Your task to perform on an android device: Show the shopping cart on bestbuy. Add "duracell triple a" to the cart on bestbuy, then select checkout. Image 0: 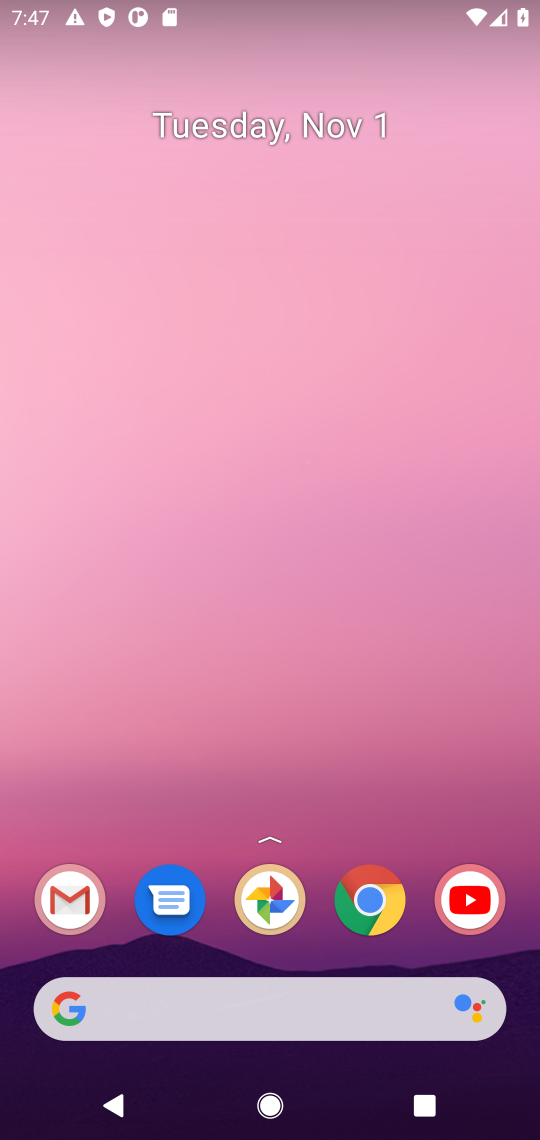
Step 0: drag from (314, 952) to (427, 198)
Your task to perform on an android device: Show the shopping cart on bestbuy. Add "duracell triple a" to the cart on bestbuy, then select checkout. Image 1: 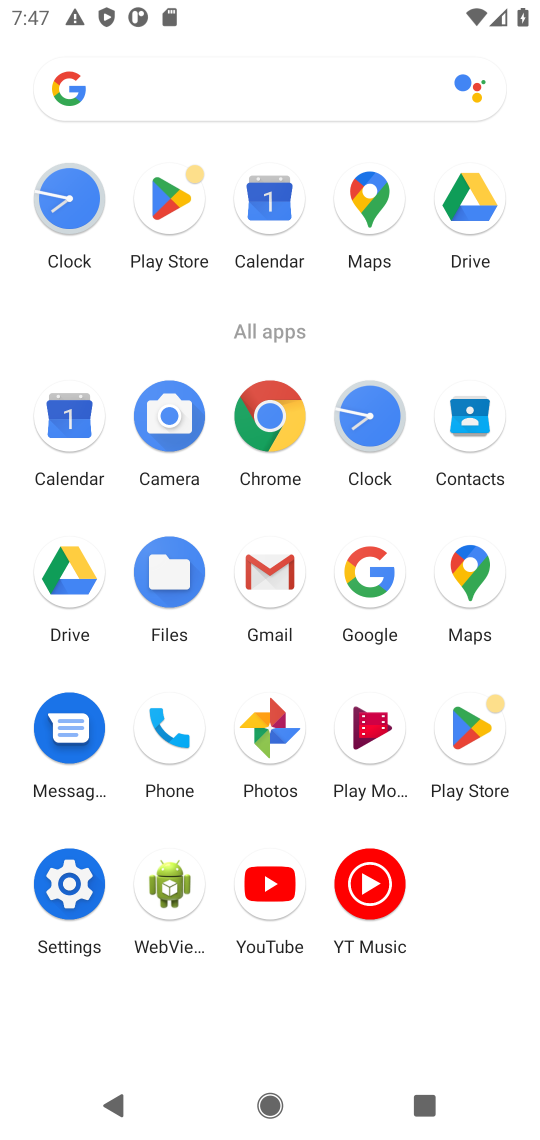
Step 1: click (272, 419)
Your task to perform on an android device: Show the shopping cart on bestbuy. Add "duracell triple a" to the cart on bestbuy, then select checkout. Image 2: 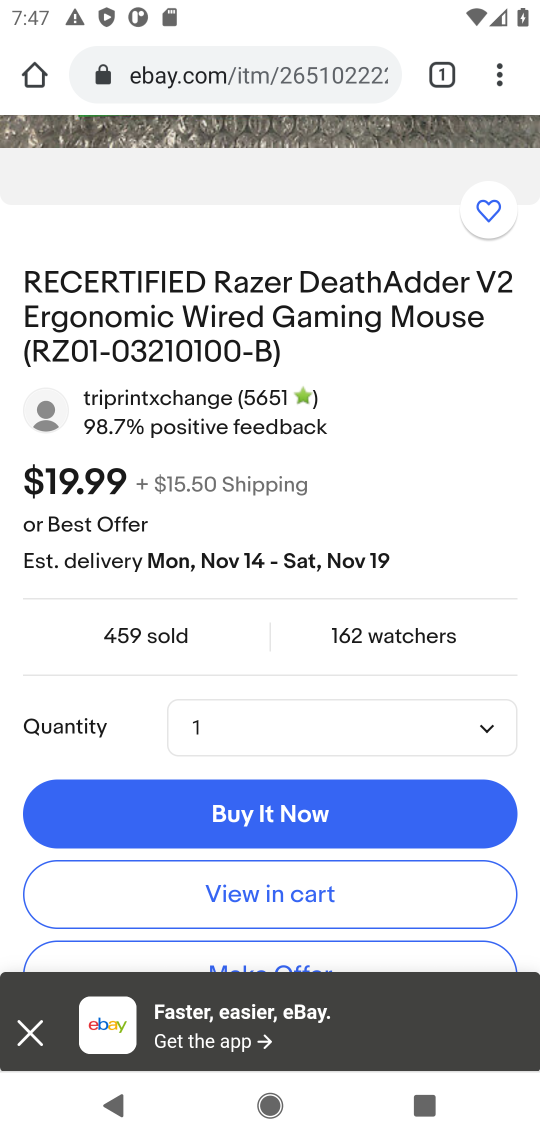
Step 2: click (322, 73)
Your task to perform on an android device: Show the shopping cart on bestbuy. Add "duracell triple a" to the cart on bestbuy, then select checkout. Image 3: 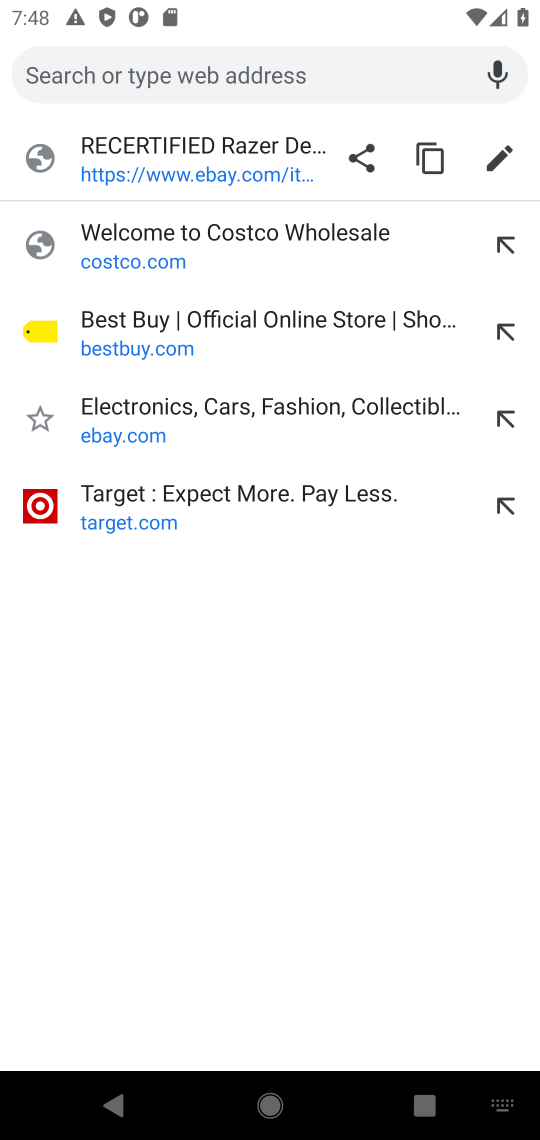
Step 3: type "bestbuy.com"
Your task to perform on an android device: Show the shopping cart on bestbuy. Add "duracell triple a" to the cart on bestbuy, then select checkout. Image 4: 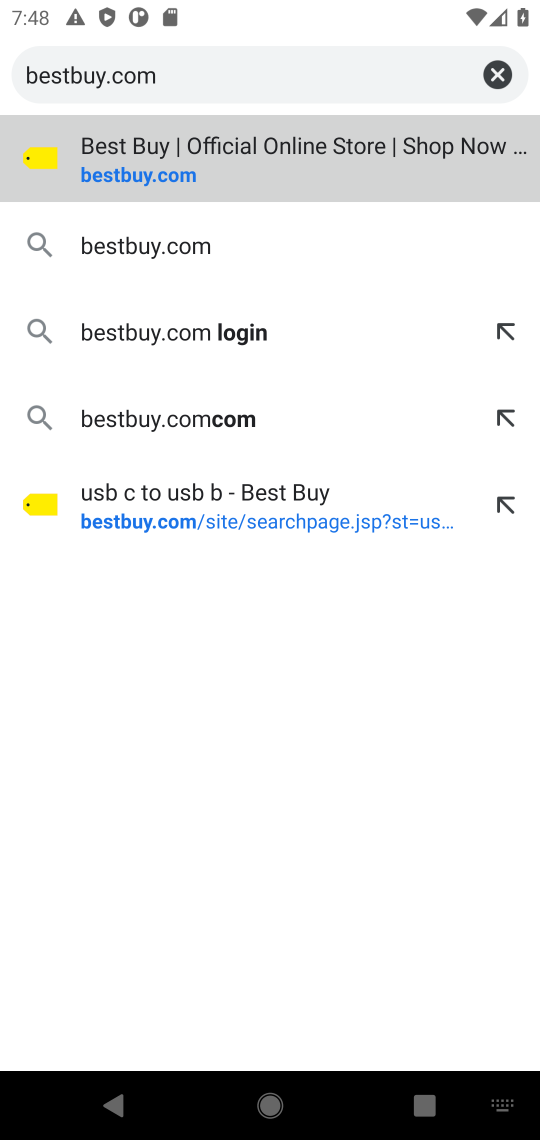
Step 4: press enter
Your task to perform on an android device: Show the shopping cart on bestbuy. Add "duracell triple a" to the cart on bestbuy, then select checkout. Image 5: 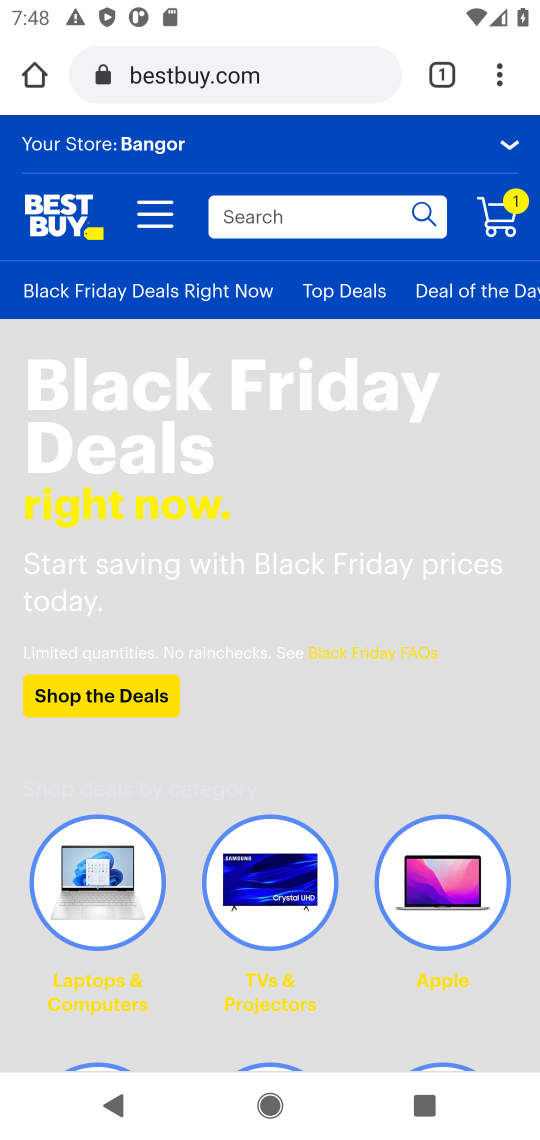
Step 5: click (492, 213)
Your task to perform on an android device: Show the shopping cart on bestbuy. Add "duracell triple a" to the cart on bestbuy, then select checkout. Image 6: 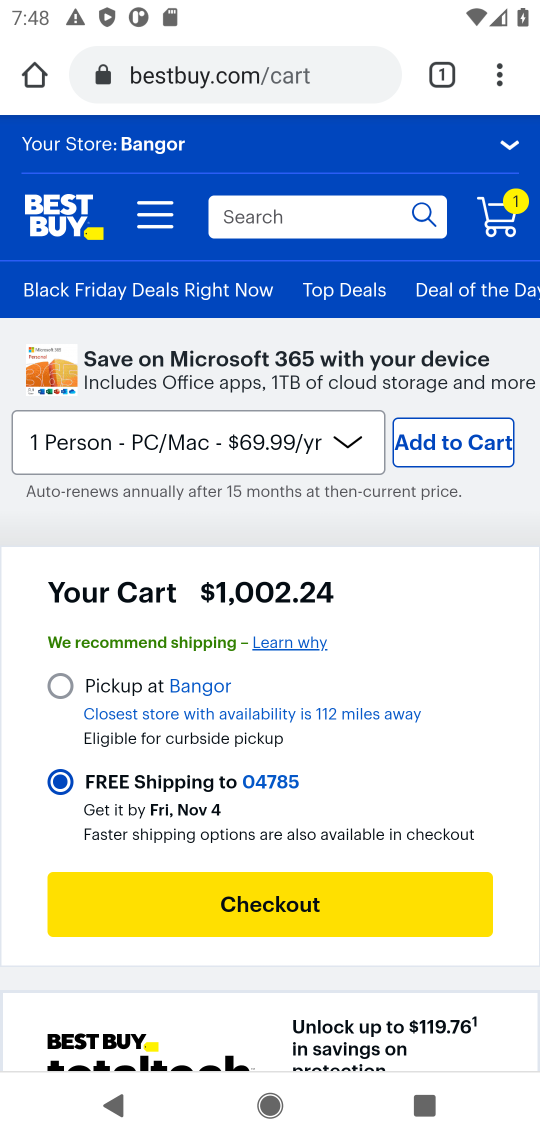
Step 6: click (371, 206)
Your task to perform on an android device: Show the shopping cart on bestbuy. Add "duracell triple a" to the cart on bestbuy, then select checkout. Image 7: 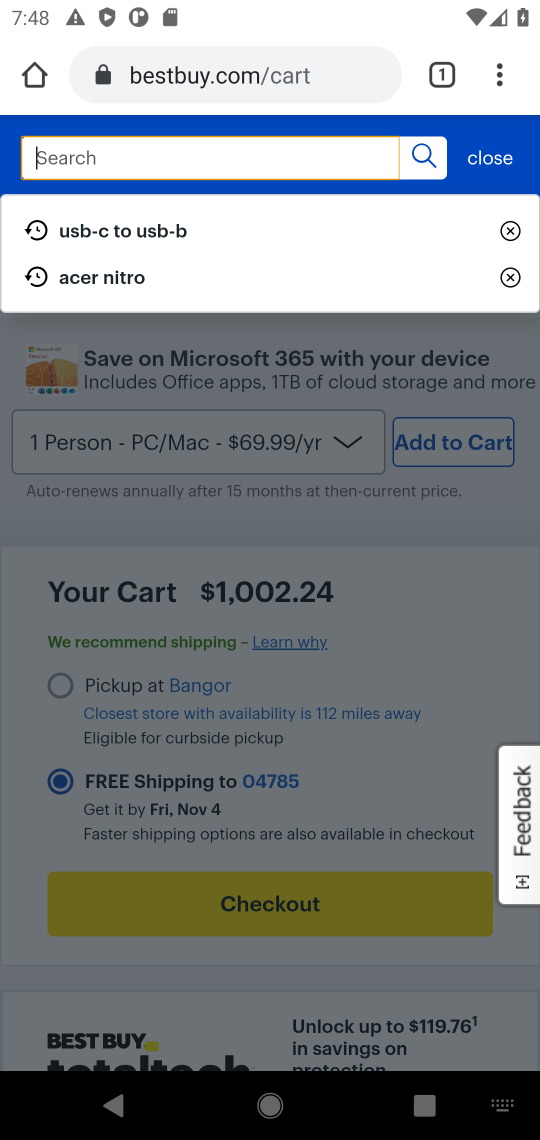
Step 7: type "duracell triple a"
Your task to perform on an android device: Show the shopping cart on bestbuy. Add "duracell triple a" to the cart on bestbuy, then select checkout. Image 8: 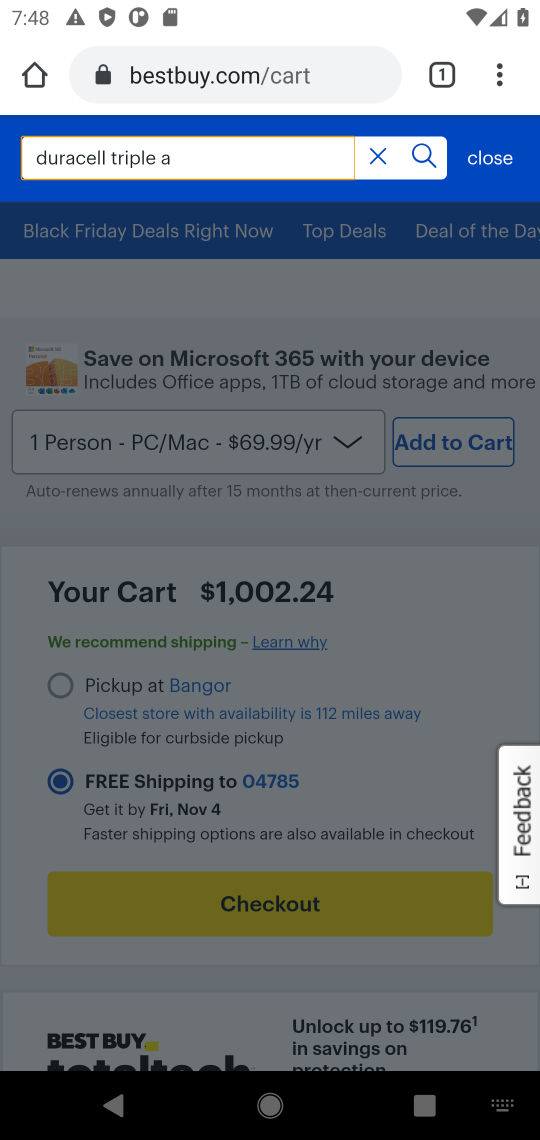
Step 8: press enter
Your task to perform on an android device: Show the shopping cart on bestbuy. Add "duracell triple a" to the cart on bestbuy, then select checkout. Image 9: 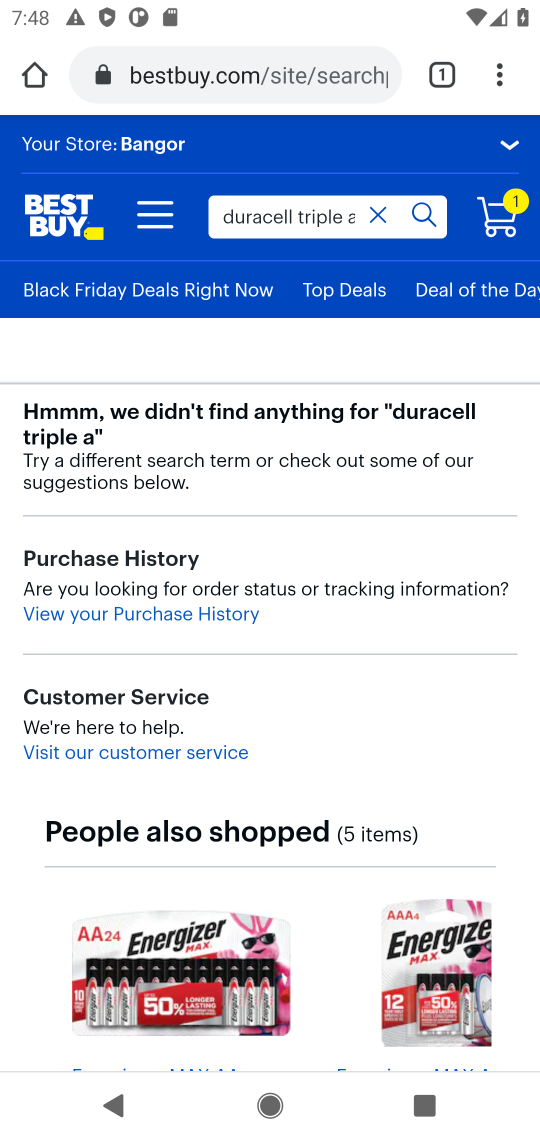
Step 9: task complete